Your task to perform on an android device: delete location history Image 0: 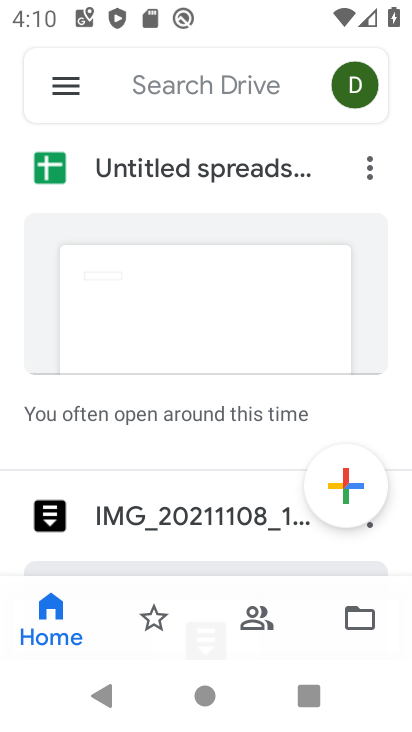
Step 0: press home button
Your task to perform on an android device: delete location history Image 1: 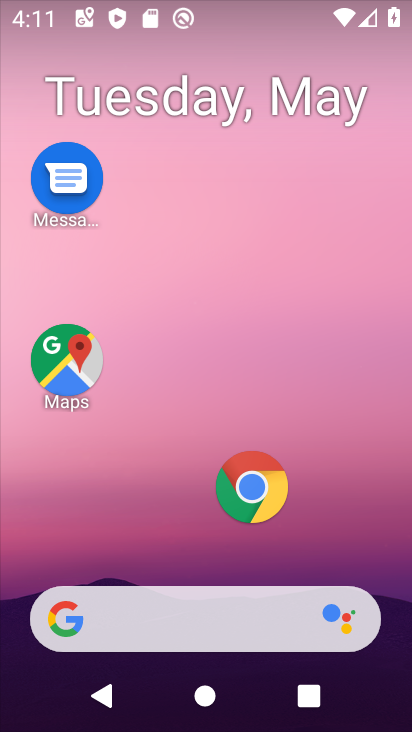
Step 1: drag from (284, 24) to (372, 82)
Your task to perform on an android device: delete location history Image 2: 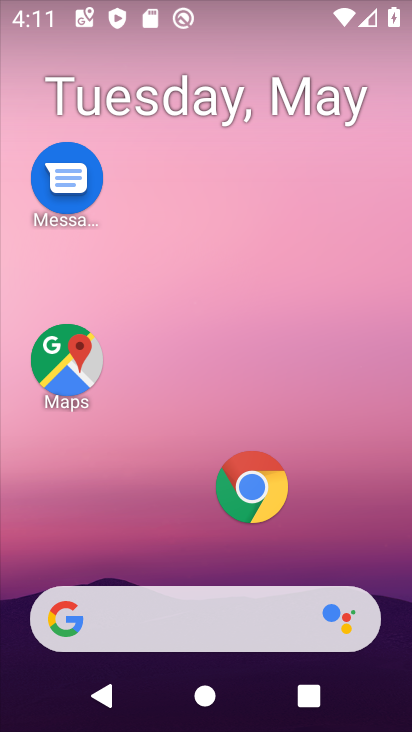
Step 2: drag from (273, 161) to (343, 4)
Your task to perform on an android device: delete location history Image 3: 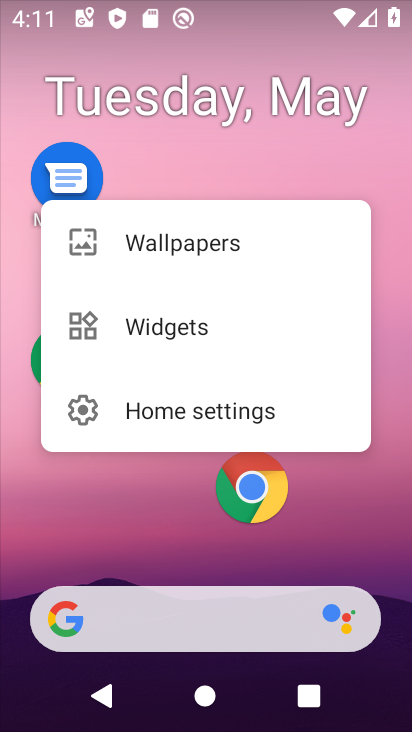
Step 3: click (149, 533)
Your task to perform on an android device: delete location history Image 4: 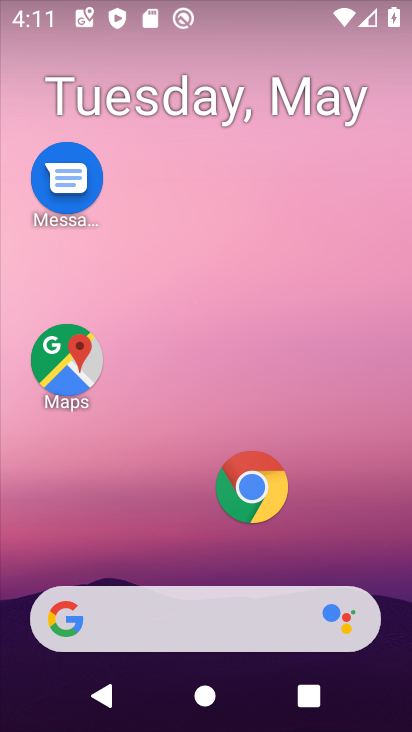
Step 4: click (54, 362)
Your task to perform on an android device: delete location history Image 5: 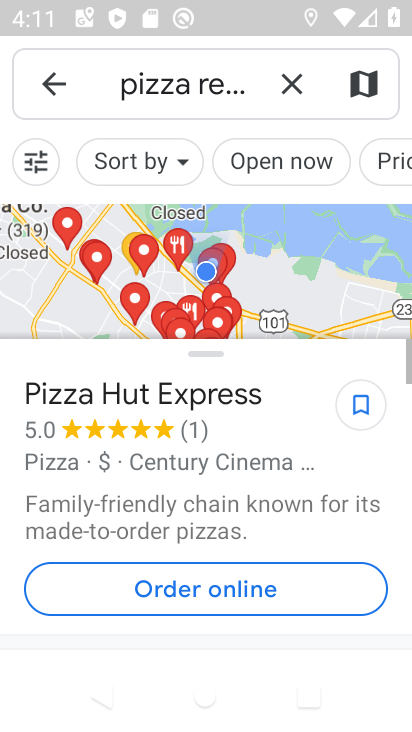
Step 5: click (281, 87)
Your task to perform on an android device: delete location history Image 6: 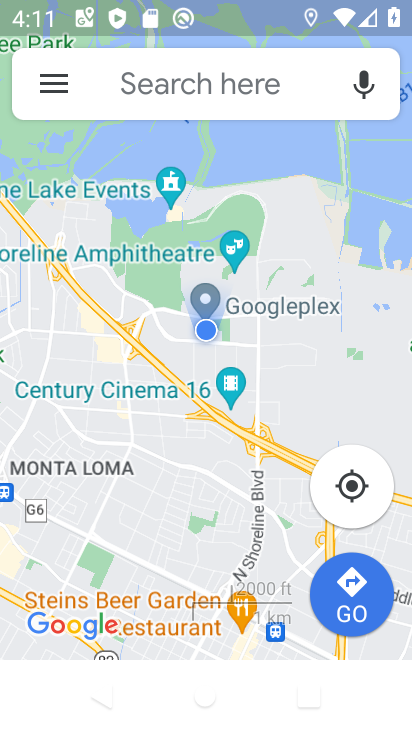
Step 6: click (56, 85)
Your task to perform on an android device: delete location history Image 7: 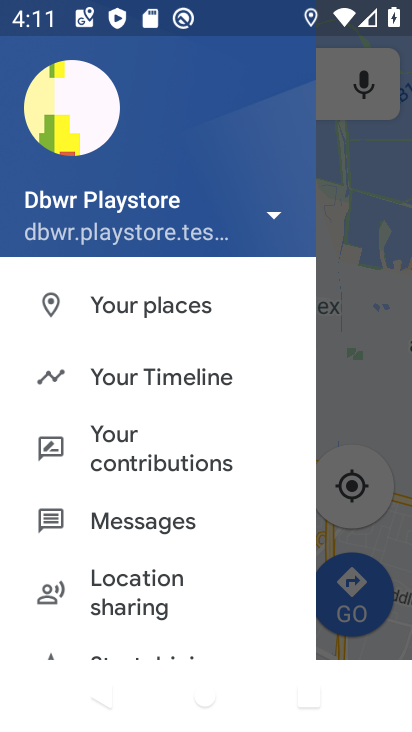
Step 7: drag from (178, 556) to (215, 152)
Your task to perform on an android device: delete location history Image 8: 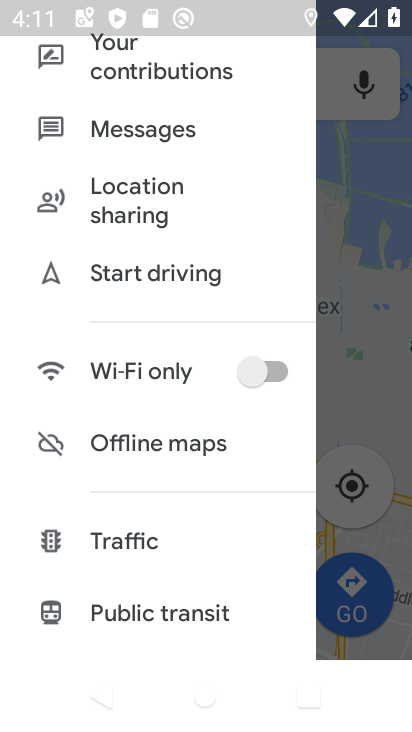
Step 8: drag from (188, 123) to (172, 491)
Your task to perform on an android device: delete location history Image 9: 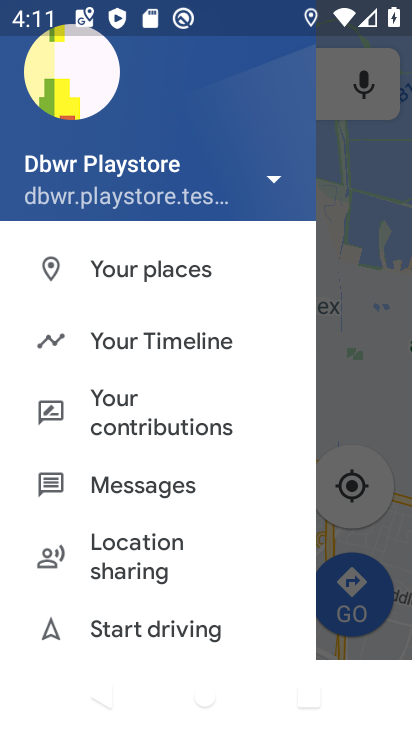
Step 9: click (120, 348)
Your task to perform on an android device: delete location history Image 10: 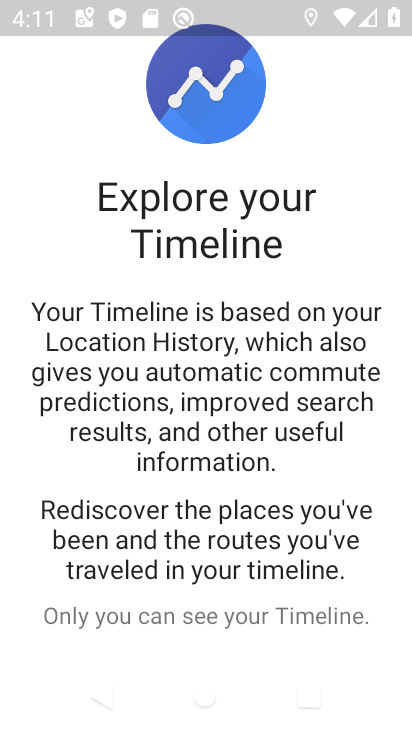
Step 10: drag from (175, 345) to (175, 180)
Your task to perform on an android device: delete location history Image 11: 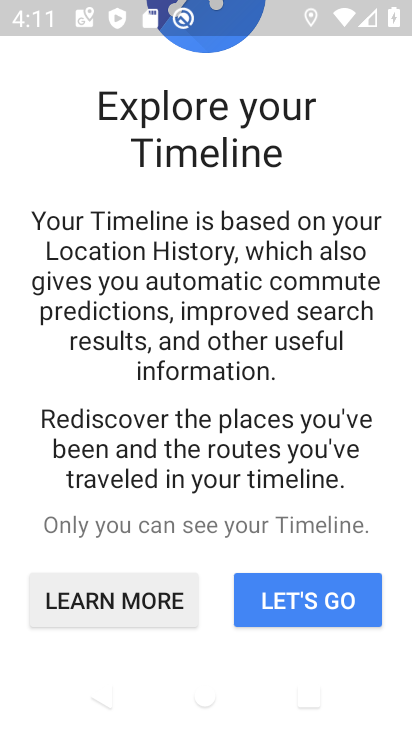
Step 11: drag from (286, 446) to (325, 170)
Your task to perform on an android device: delete location history Image 12: 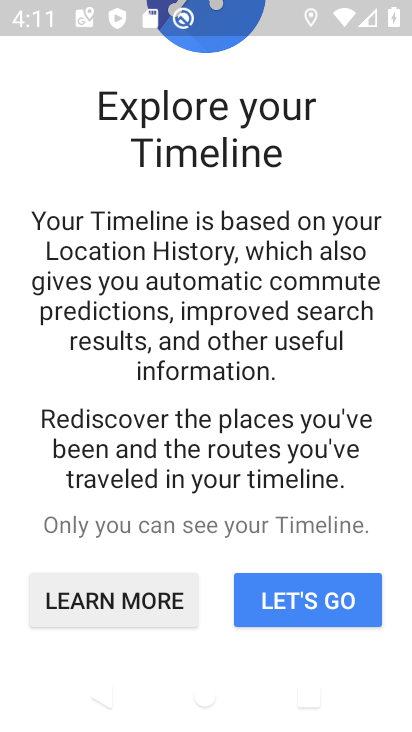
Step 12: click (302, 606)
Your task to perform on an android device: delete location history Image 13: 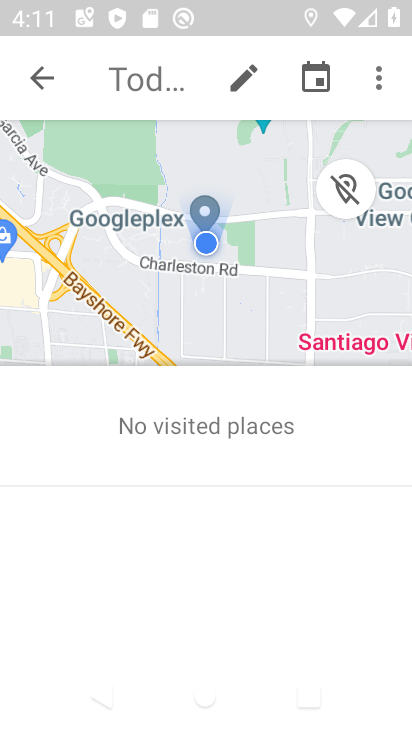
Step 13: click (377, 93)
Your task to perform on an android device: delete location history Image 14: 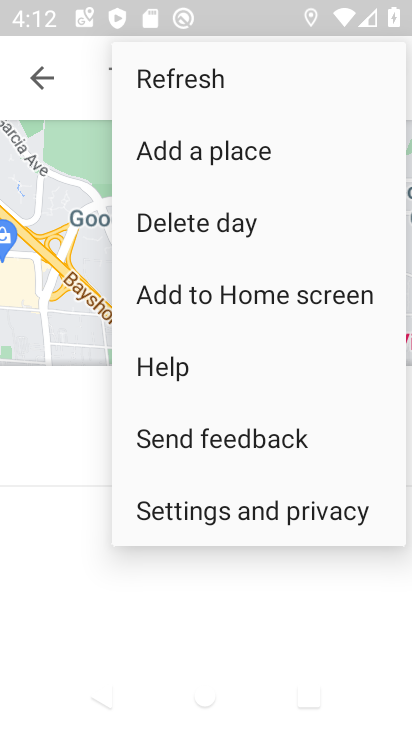
Step 14: click (234, 503)
Your task to perform on an android device: delete location history Image 15: 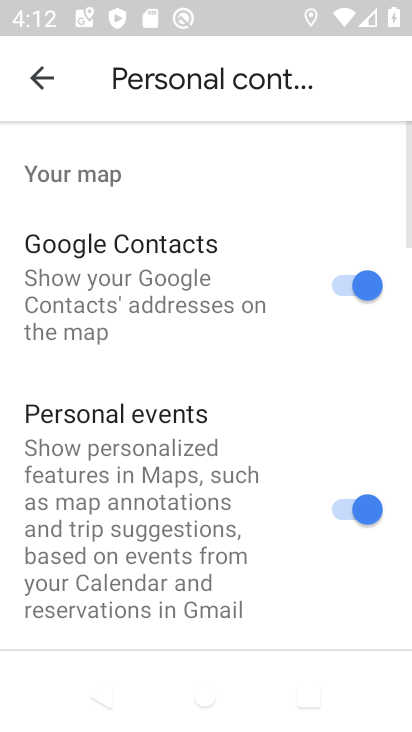
Step 15: drag from (230, 540) to (313, 7)
Your task to perform on an android device: delete location history Image 16: 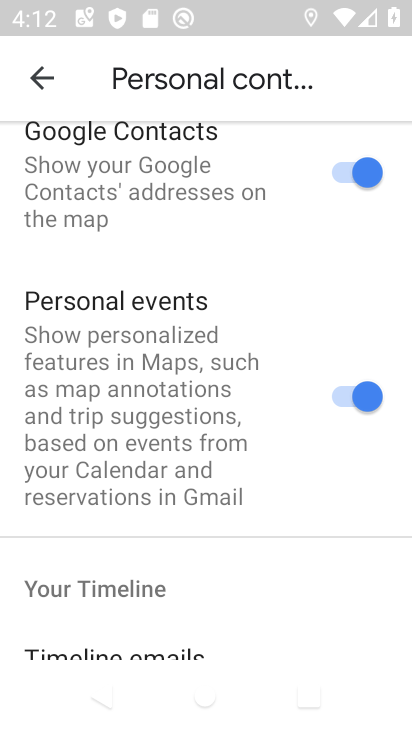
Step 16: drag from (176, 418) to (128, 9)
Your task to perform on an android device: delete location history Image 17: 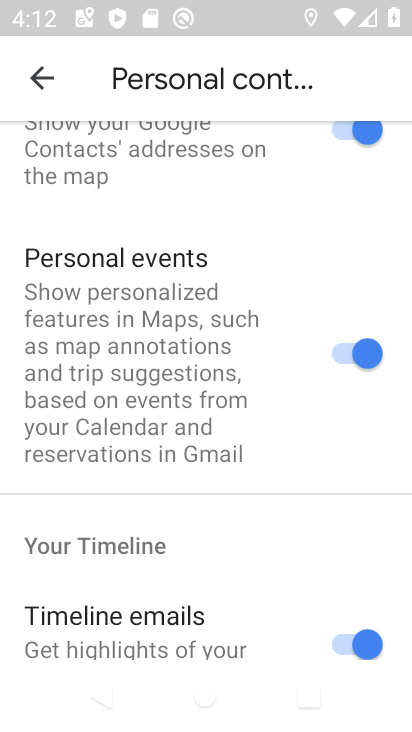
Step 17: drag from (172, 529) to (246, 71)
Your task to perform on an android device: delete location history Image 18: 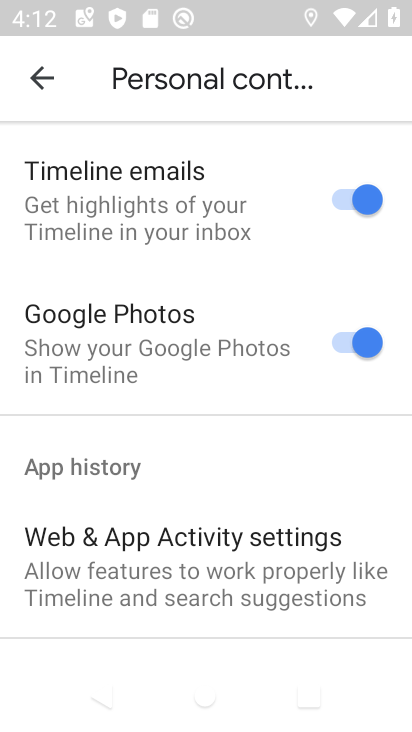
Step 18: drag from (170, 605) to (240, 78)
Your task to perform on an android device: delete location history Image 19: 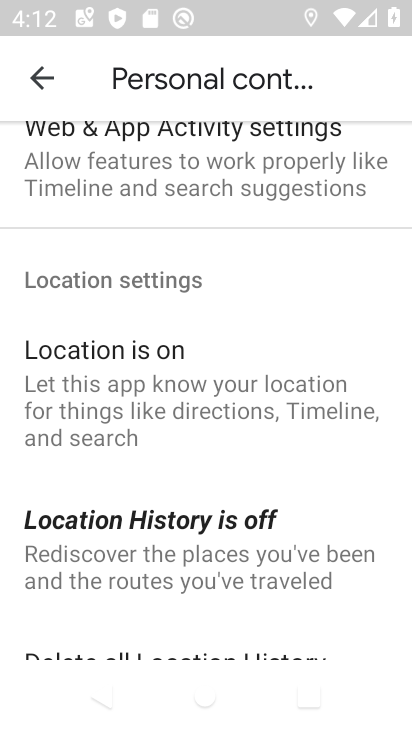
Step 19: drag from (170, 579) to (252, 139)
Your task to perform on an android device: delete location history Image 20: 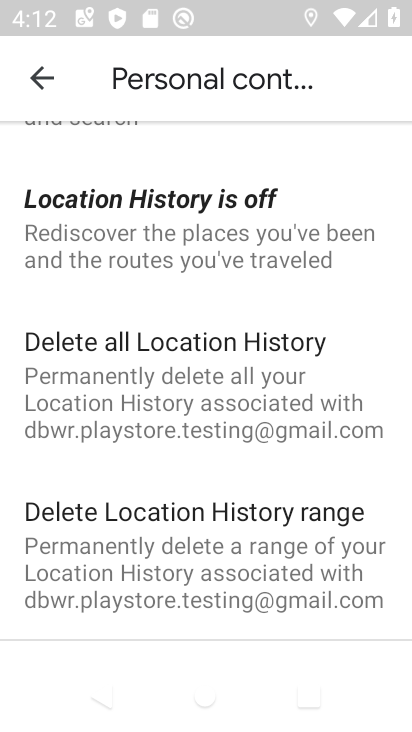
Step 20: click (175, 406)
Your task to perform on an android device: delete location history Image 21: 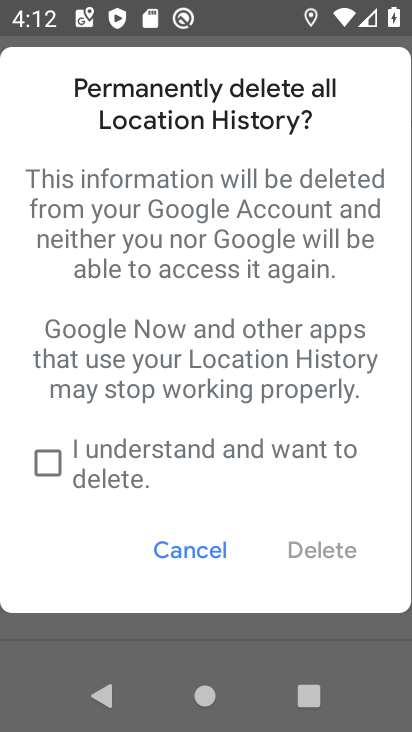
Step 21: click (66, 469)
Your task to perform on an android device: delete location history Image 22: 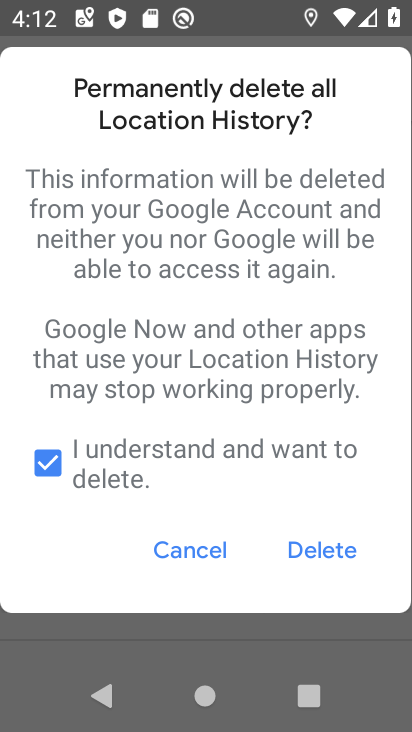
Step 22: click (310, 546)
Your task to perform on an android device: delete location history Image 23: 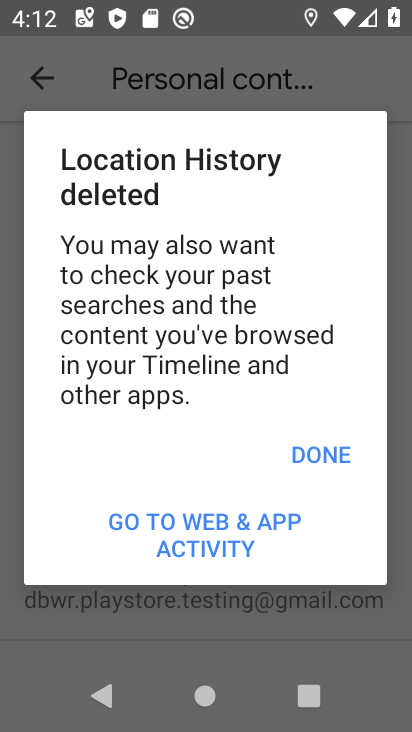
Step 23: click (325, 460)
Your task to perform on an android device: delete location history Image 24: 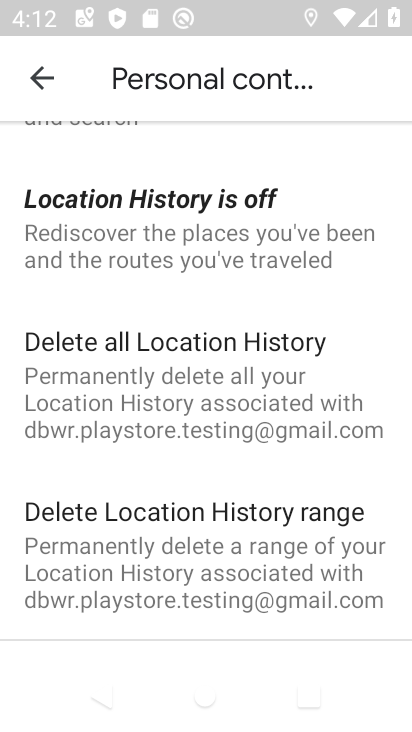
Step 24: task complete